Your task to perform on an android device: turn on bluetooth scan Image 0: 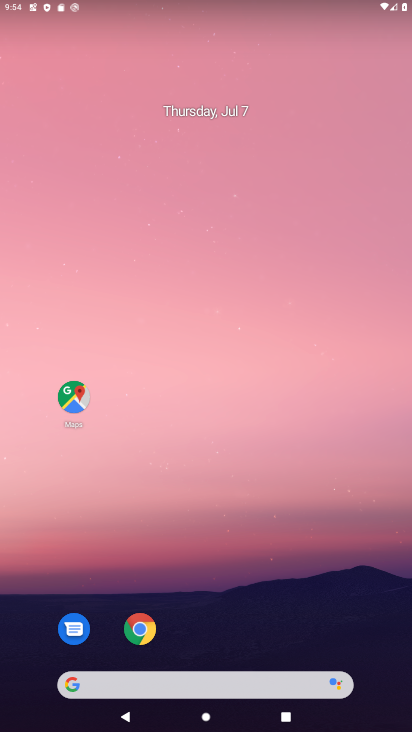
Step 0: drag from (187, 664) to (170, 131)
Your task to perform on an android device: turn on bluetooth scan Image 1: 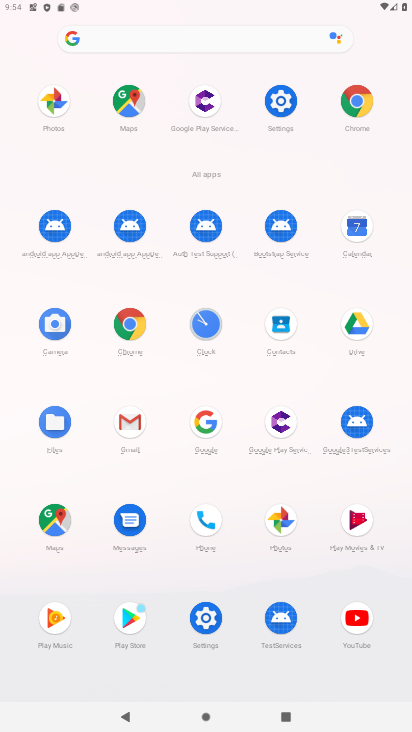
Step 1: click (275, 107)
Your task to perform on an android device: turn on bluetooth scan Image 2: 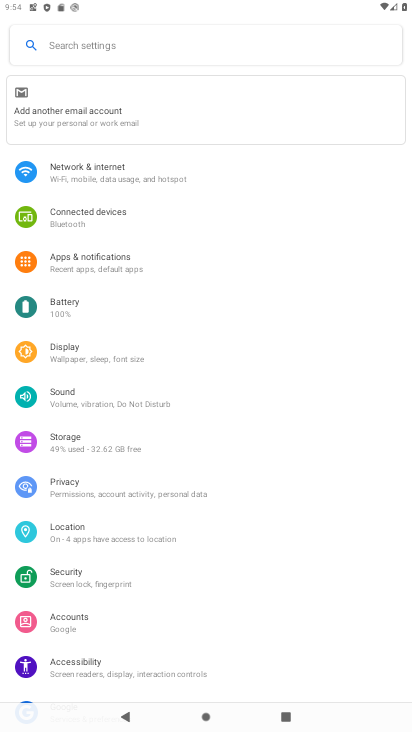
Step 2: click (73, 527)
Your task to perform on an android device: turn on bluetooth scan Image 3: 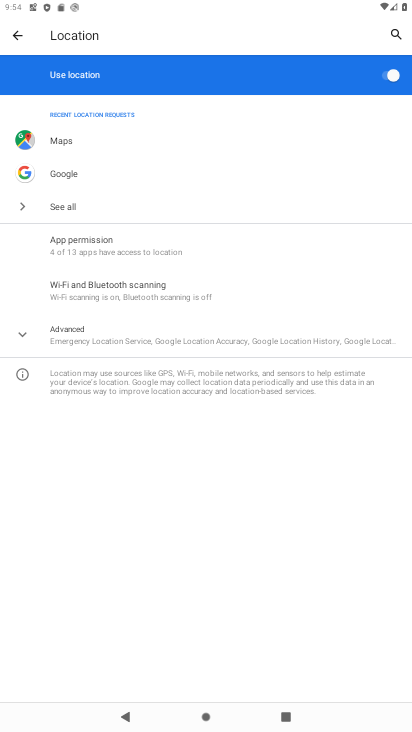
Step 3: click (75, 280)
Your task to perform on an android device: turn on bluetooth scan Image 4: 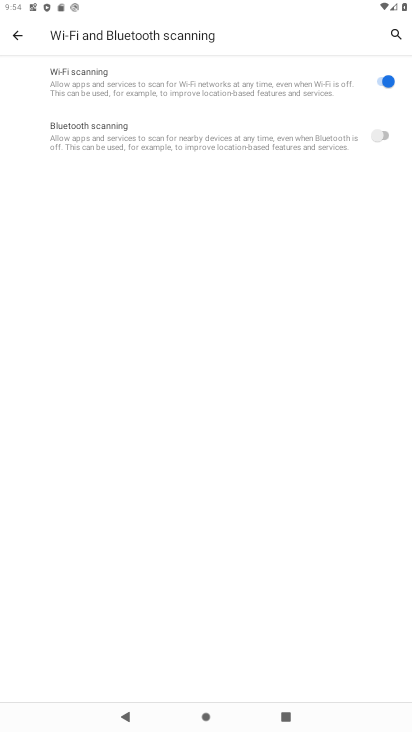
Step 4: click (381, 134)
Your task to perform on an android device: turn on bluetooth scan Image 5: 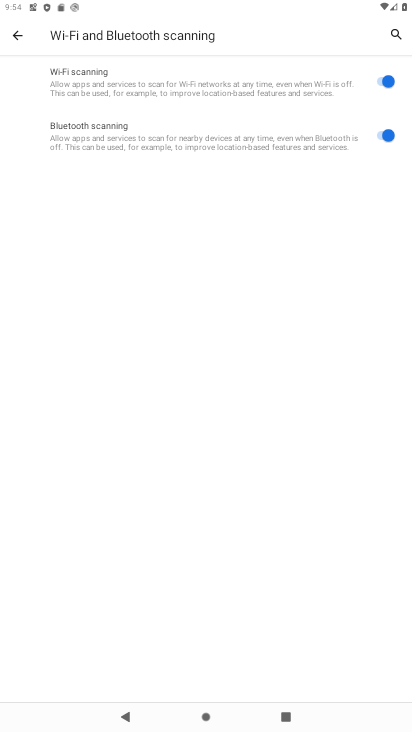
Step 5: task complete